Your task to perform on an android device: all mails in gmail Image 0: 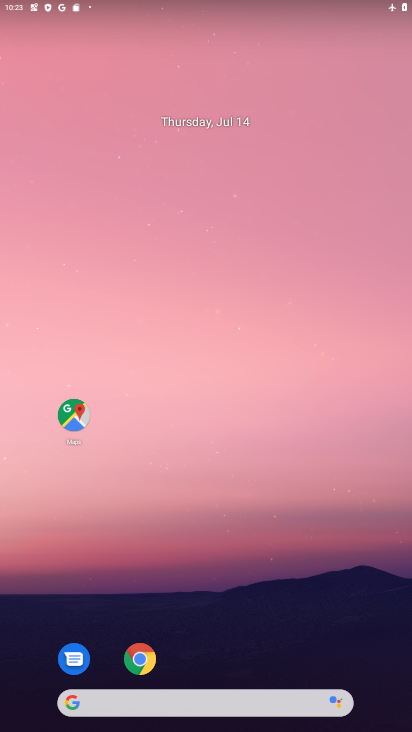
Step 0: drag from (240, 620) to (255, 147)
Your task to perform on an android device: all mails in gmail Image 1: 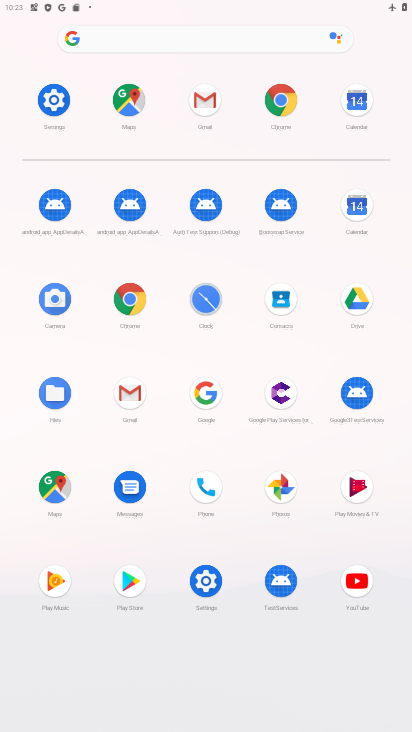
Step 1: click (207, 102)
Your task to perform on an android device: all mails in gmail Image 2: 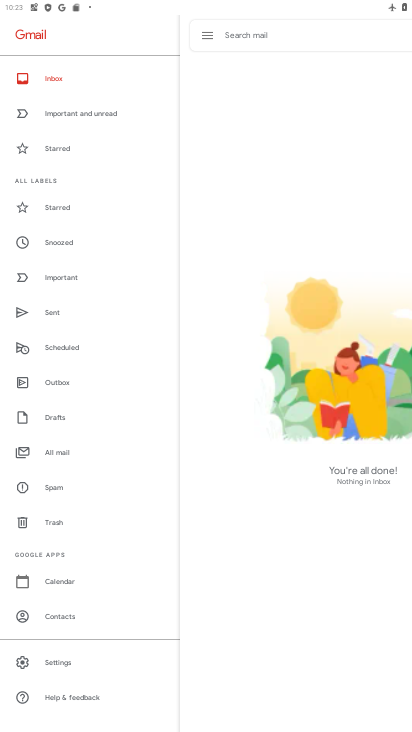
Step 2: click (65, 451)
Your task to perform on an android device: all mails in gmail Image 3: 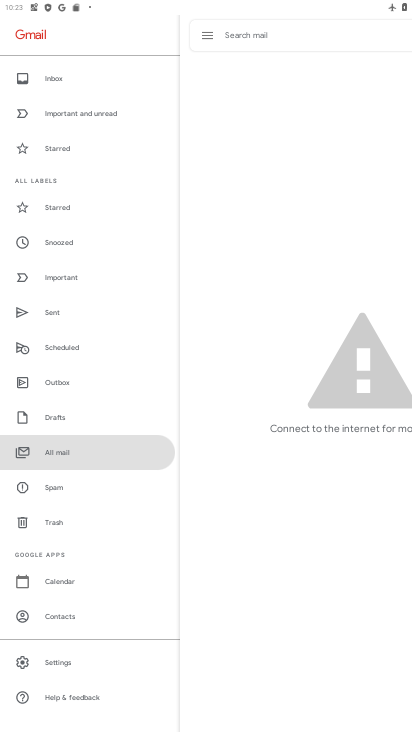
Step 3: task complete